Your task to perform on an android device: turn off picture-in-picture Image 0: 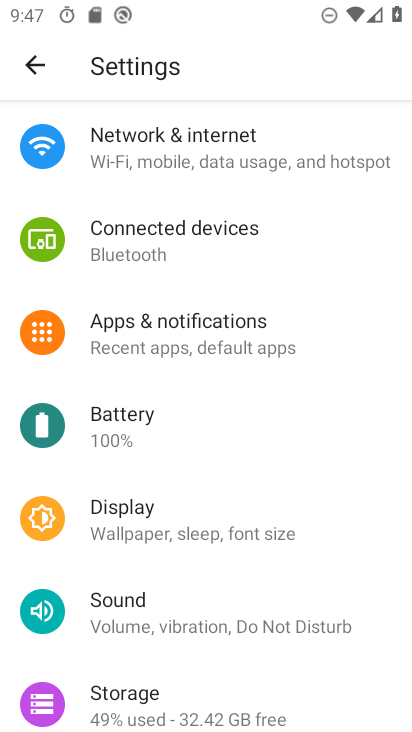
Step 0: click (221, 325)
Your task to perform on an android device: turn off picture-in-picture Image 1: 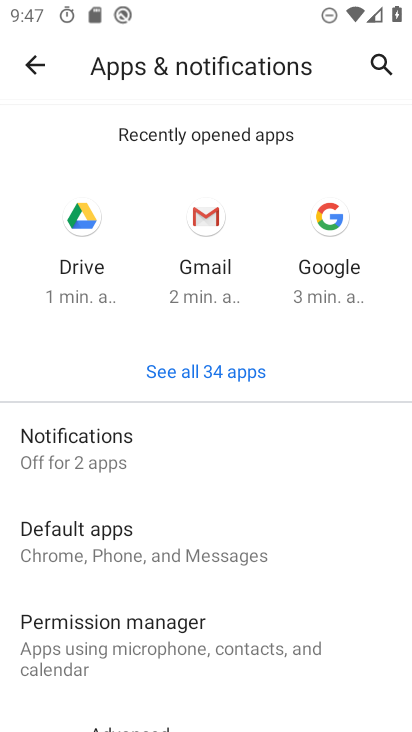
Step 1: click (138, 445)
Your task to perform on an android device: turn off picture-in-picture Image 2: 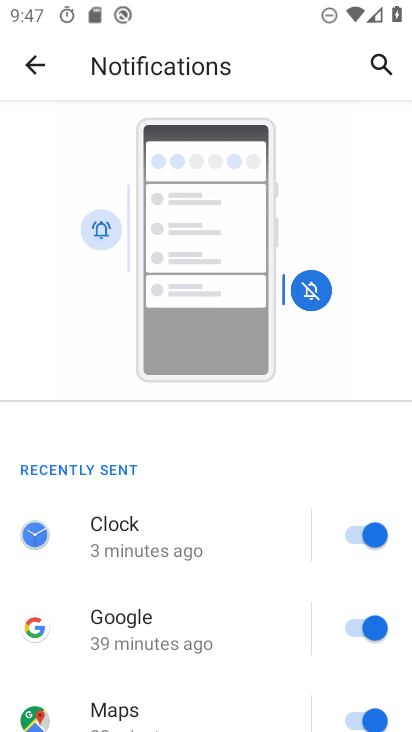
Step 2: drag from (198, 629) to (320, 98)
Your task to perform on an android device: turn off picture-in-picture Image 3: 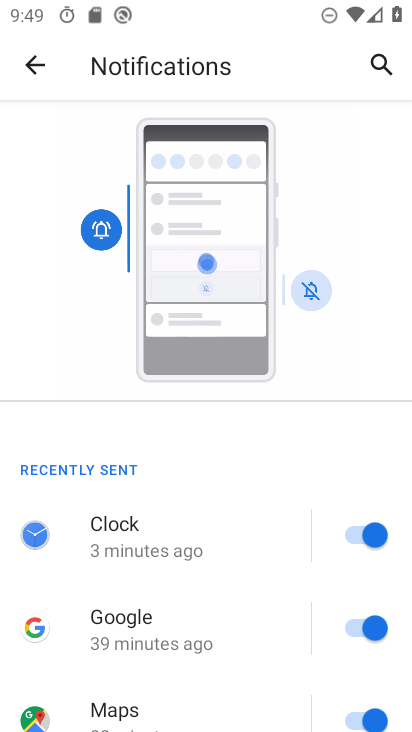
Step 3: drag from (163, 651) to (224, 261)
Your task to perform on an android device: turn off picture-in-picture Image 4: 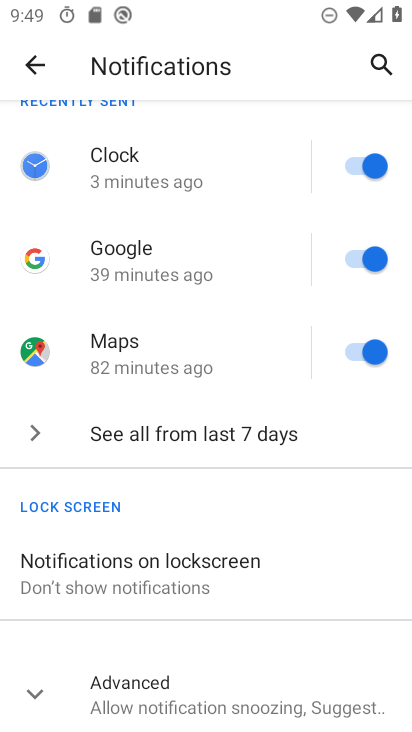
Step 4: drag from (164, 674) to (283, 152)
Your task to perform on an android device: turn off picture-in-picture Image 5: 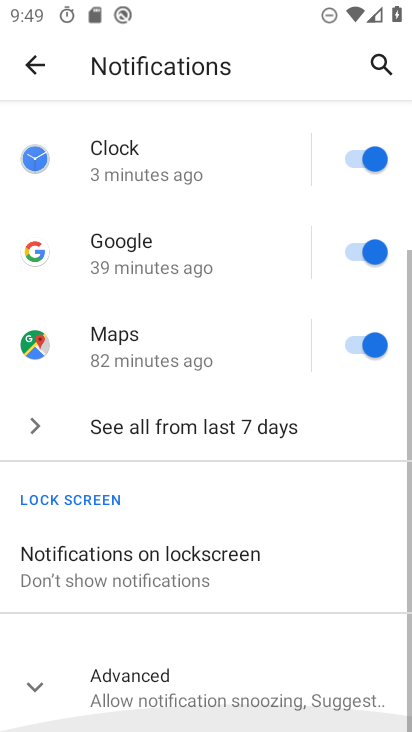
Step 5: click (207, 680)
Your task to perform on an android device: turn off picture-in-picture Image 6: 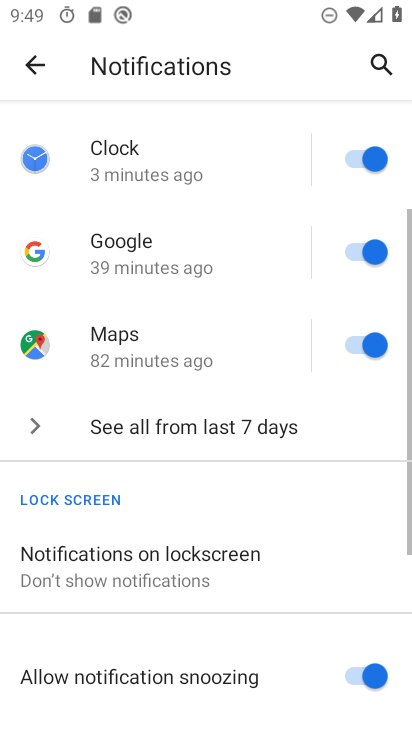
Step 6: drag from (185, 669) to (265, 18)
Your task to perform on an android device: turn off picture-in-picture Image 7: 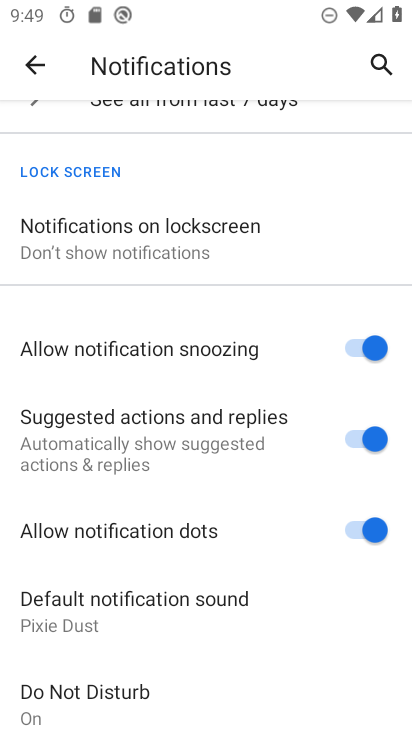
Step 7: drag from (112, 663) to (251, 7)
Your task to perform on an android device: turn off picture-in-picture Image 8: 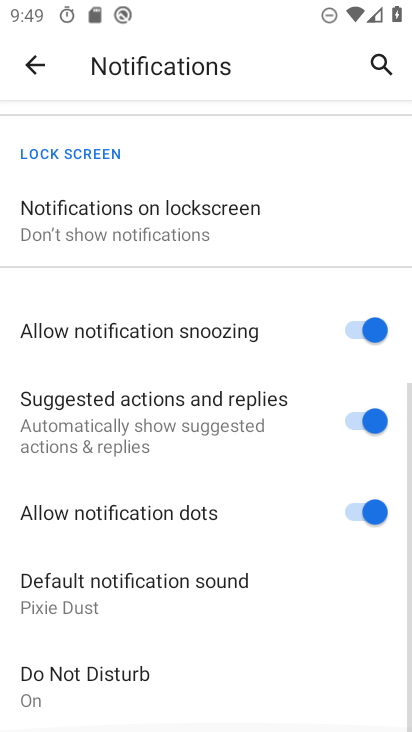
Step 8: click (21, 65)
Your task to perform on an android device: turn off picture-in-picture Image 9: 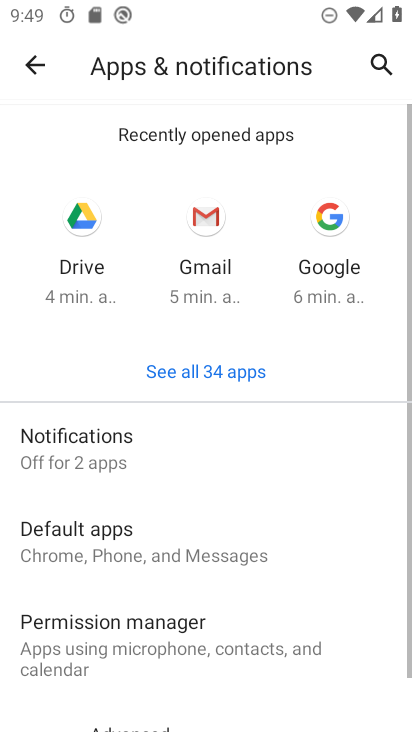
Step 9: drag from (128, 692) to (263, 98)
Your task to perform on an android device: turn off picture-in-picture Image 10: 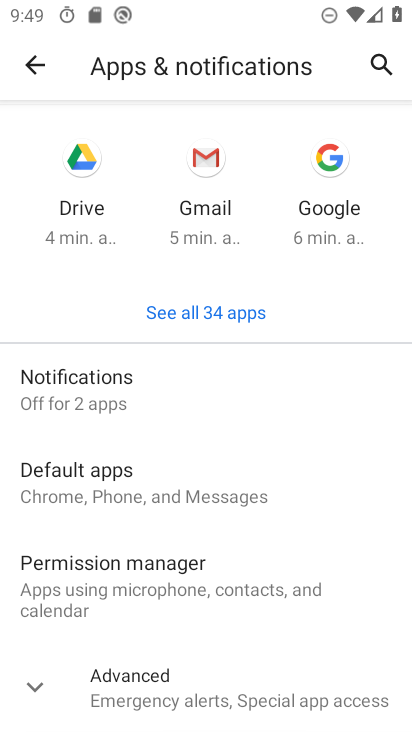
Step 10: click (132, 694)
Your task to perform on an android device: turn off picture-in-picture Image 11: 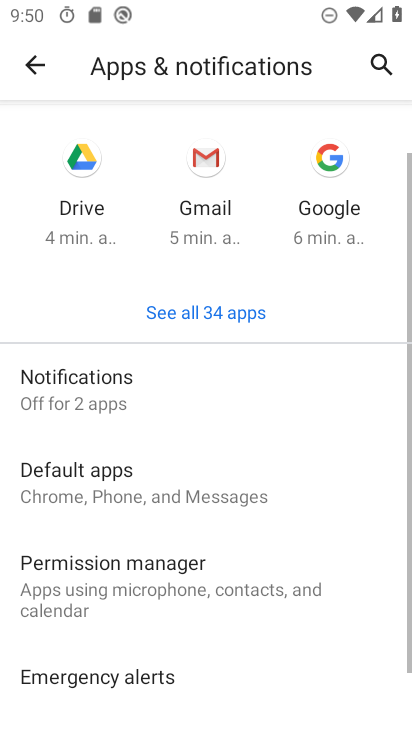
Step 11: drag from (133, 666) to (302, 114)
Your task to perform on an android device: turn off picture-in-picture Image 12: 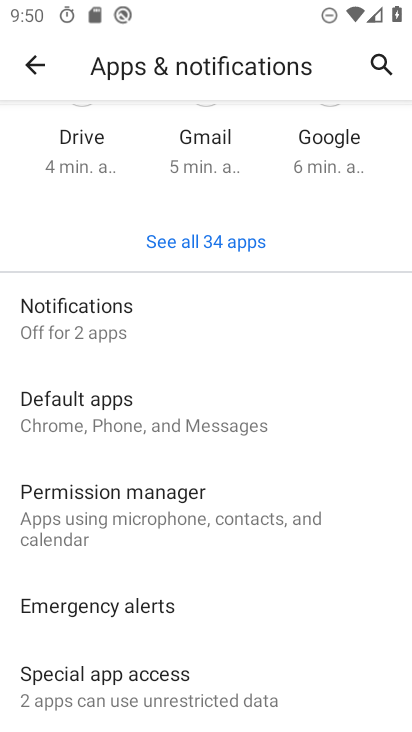
Step 12: click (159, 697)
Your task to perform on an android device: turn off picture-in-picture Image 13: 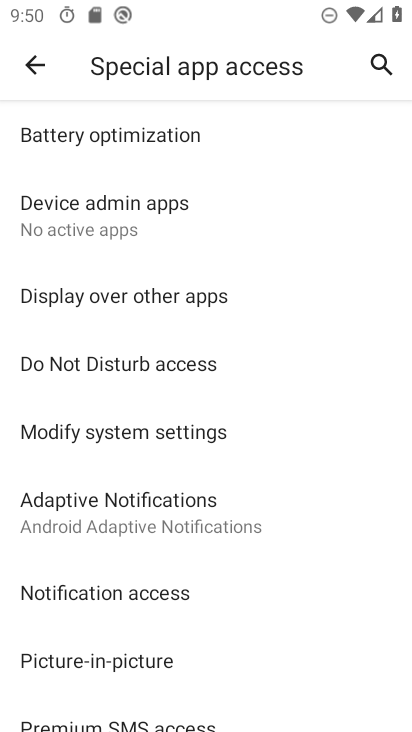
Step 13: click (100, 656)
Your task to perform on an android device: turn off picture-in-picture Image 14: 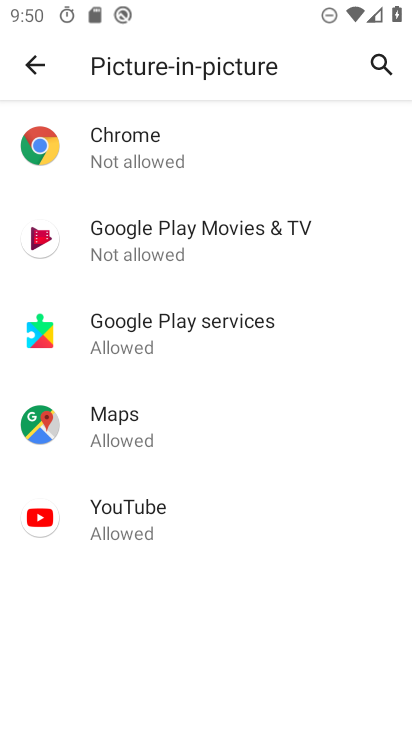
Step 14: click (135, 127)
Your task to perform on an android device: turn off picture-in-picture Image 15: 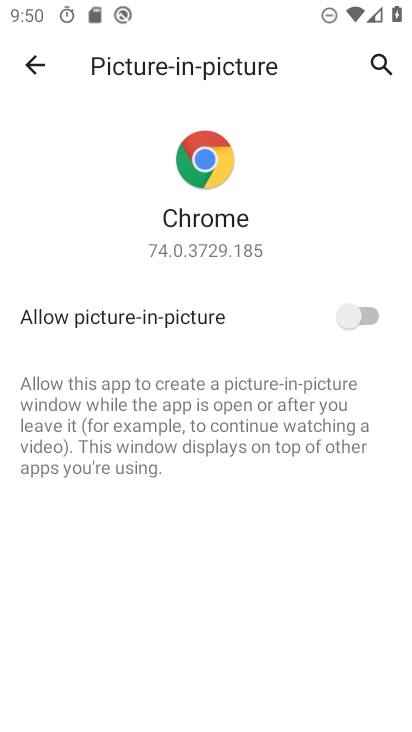
Step 15: click (36, 70)
Your task to perform on an android device: turn off picture-in-picture Image 16: 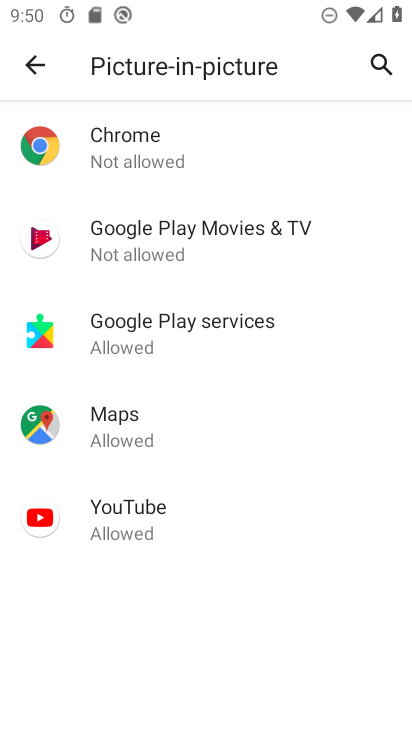
Step 16: click (156, 340)
Your task to perform on an android device: turn off picture-in-picture Image 17: 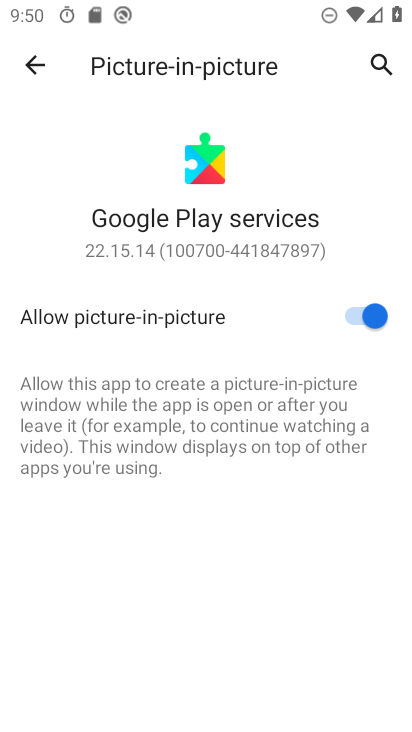
Step 17: click (354, 313)
Your task to perform on an android device: turn off picture-in-picture Image 18: 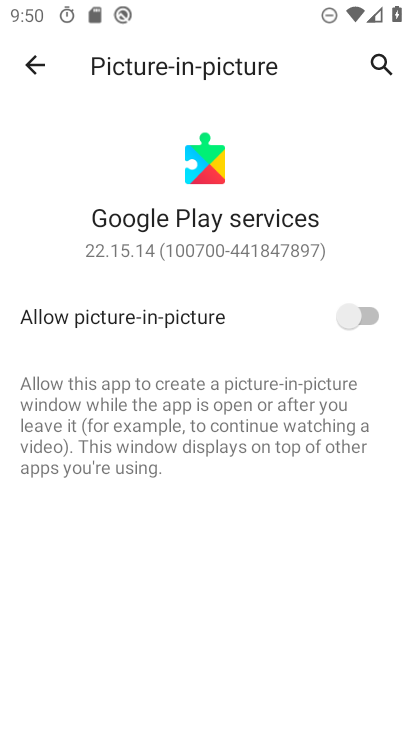
Step 18: task complete